Your task to perform on an android device: Open Reddit.com Image 0: 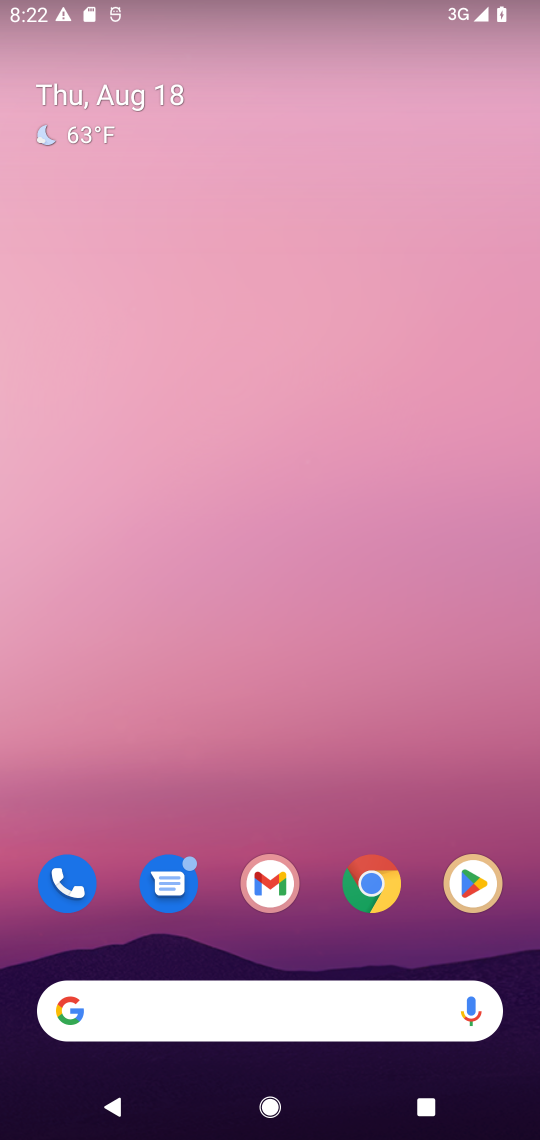
Step 0: click (104, 1011)
Your task to perform on an android device: Open Reddit.com Image 1: 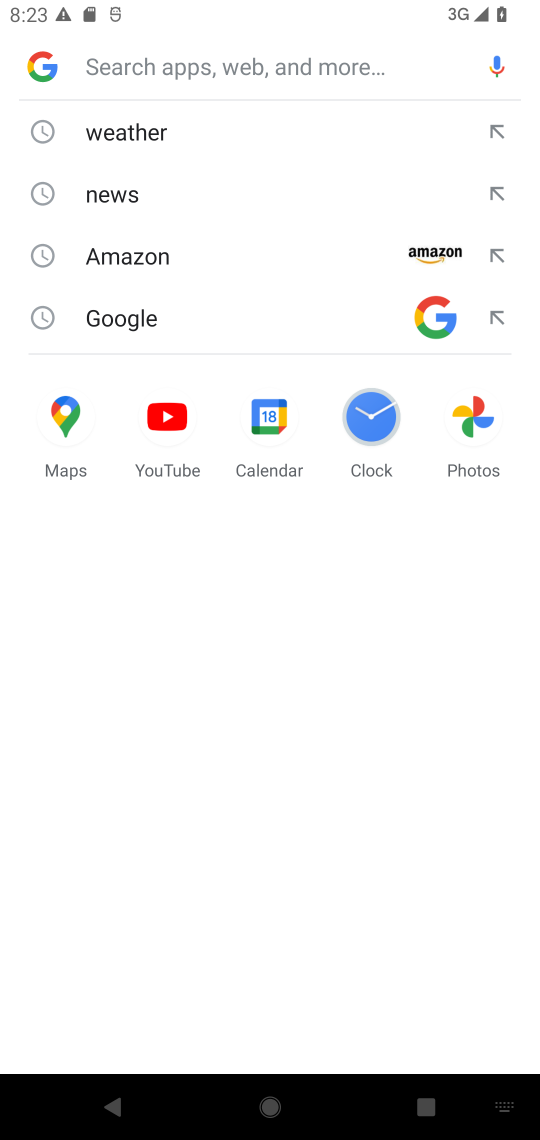
Step 1: type "Reddit.com"
Your task to perform on an android device: Open Reddit.com Image 2: 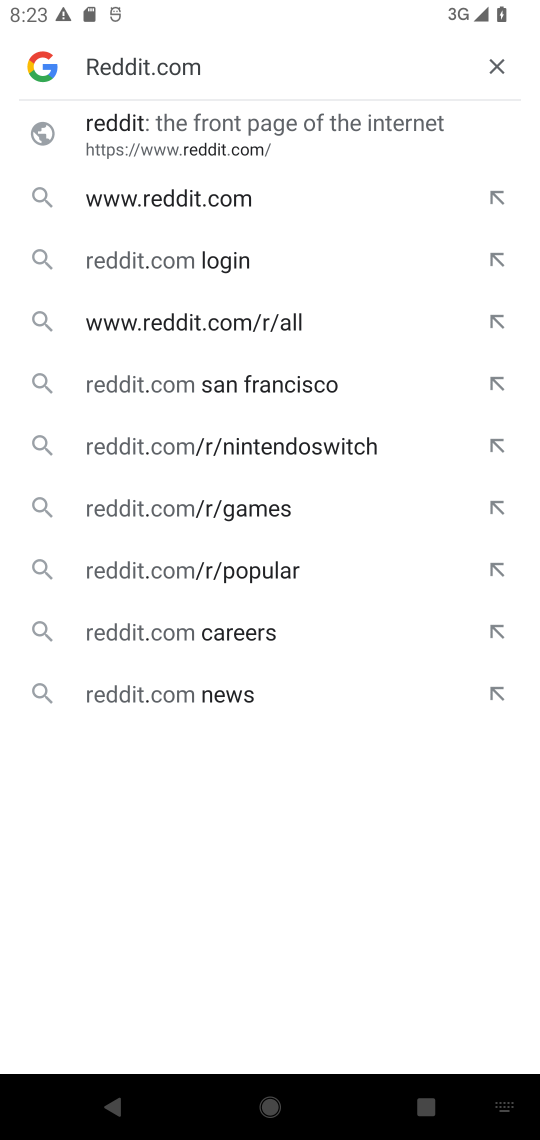
Step 2: click (180, 202)
Your task to perform on an android device: Open Reddit.com Image 3: 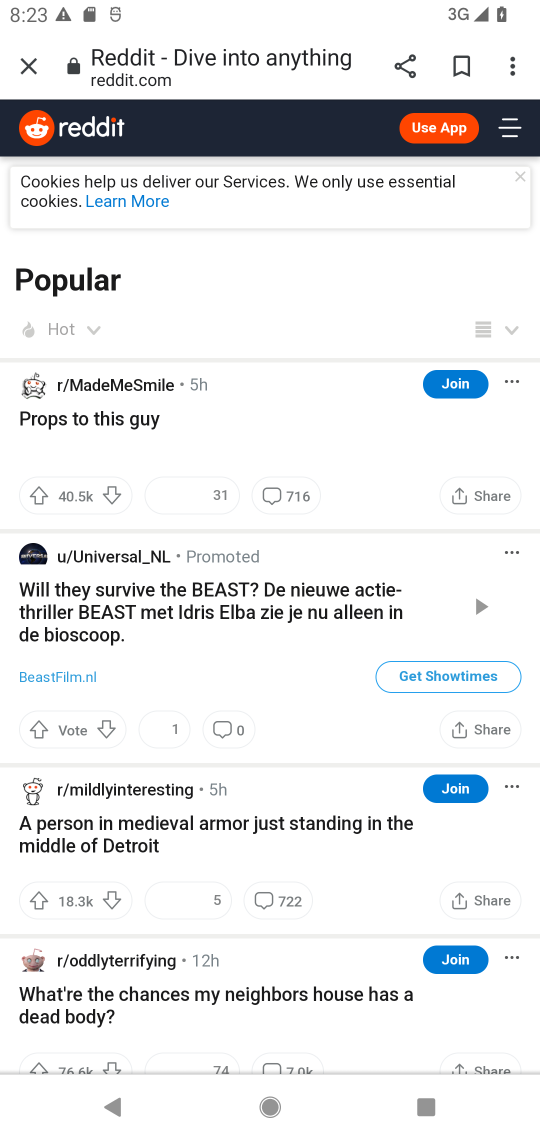
Step 3: task complete